Your task to perform on an android device: Go to privacy settings Image 0: 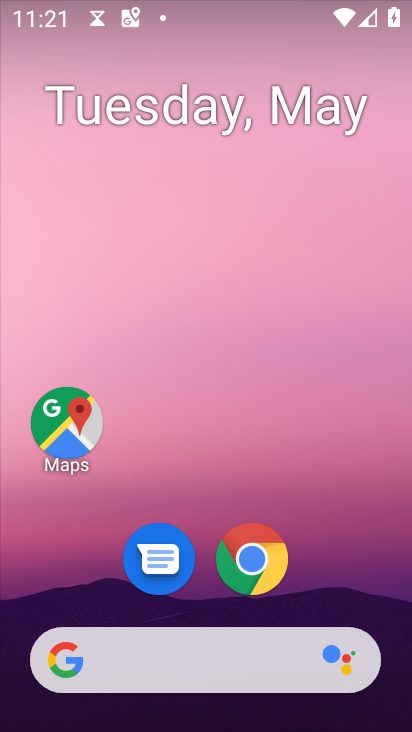
Step 0: drag from (345, 540) to (324, 37)
Your task to perform on an android device: Go to privacy settings Image 1: 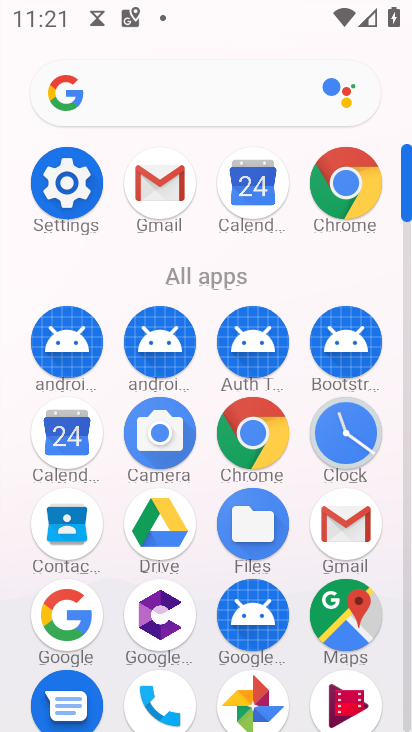
Step 1: click (55, 181)
Your task to perform on an android device: Go to privacy settings Image 2: 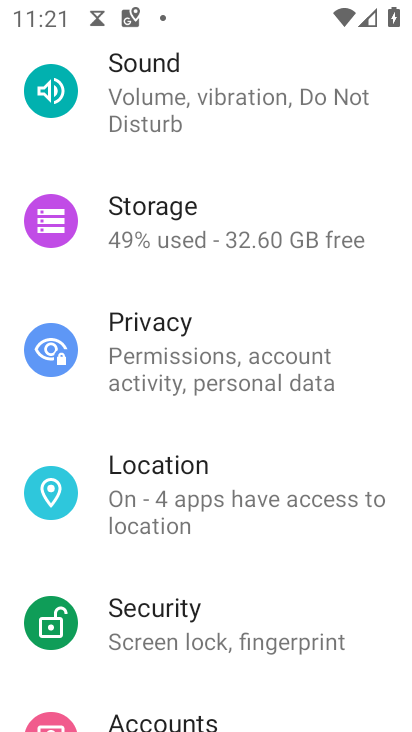
Step 2: click (195, 373)
Your task to perform on an android device: Go to privacy settings Image 3: 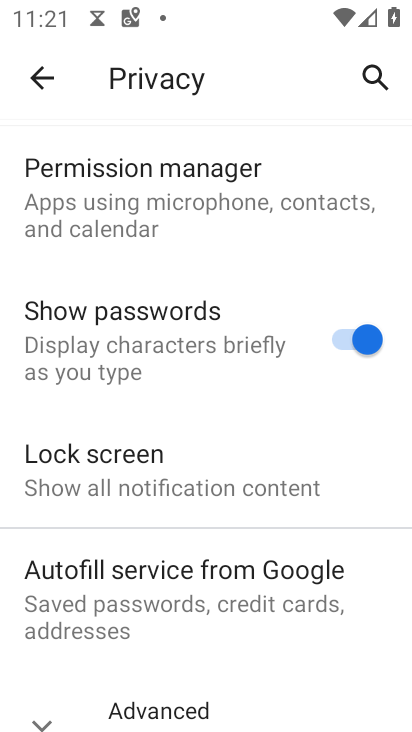
Step 3: task complete